Your task to perform on an android device: Open wifi settings Image 0: 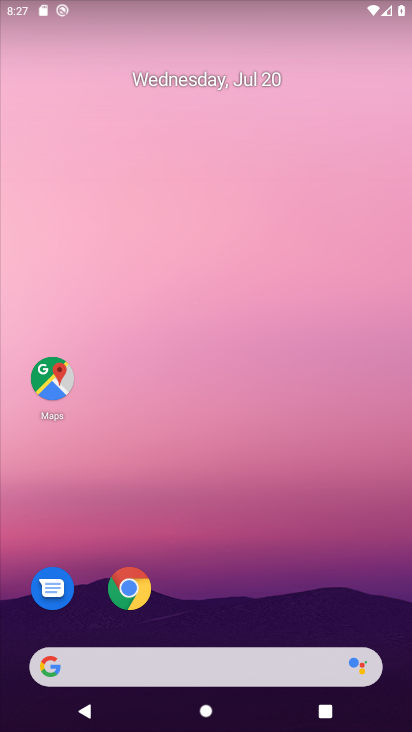
Step 0: drag from (215, 615) to (252, 85)
Your task to perform on an android device: Open wifi settings Image 1: 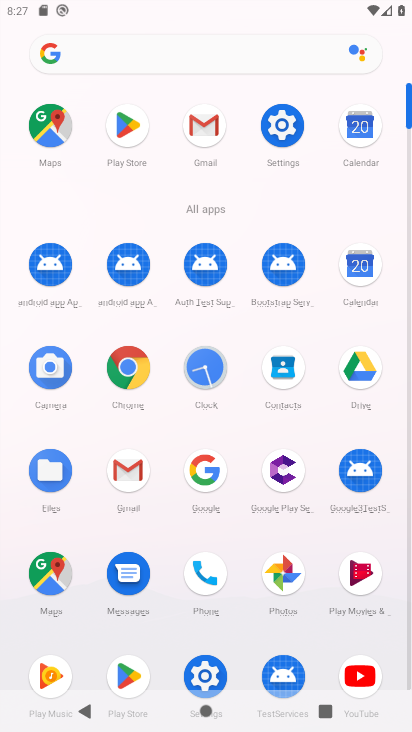
Step 1: click (266, 120)
Your task to perform on an android device: Open wifi settings Image 2: 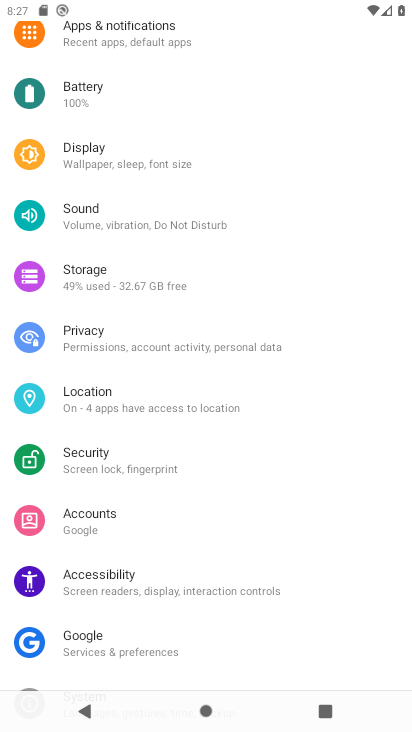
Step 2: drag from (181, 93) to (169, 563)
Your task to perform on an android device: Open wifi settings Image 3: 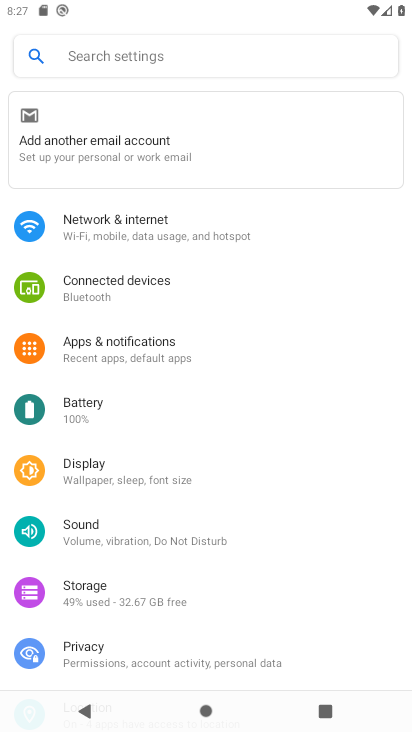
Step 3: click (191, 223)
Your task to perform on an android device: Open wifi settings Image 4: 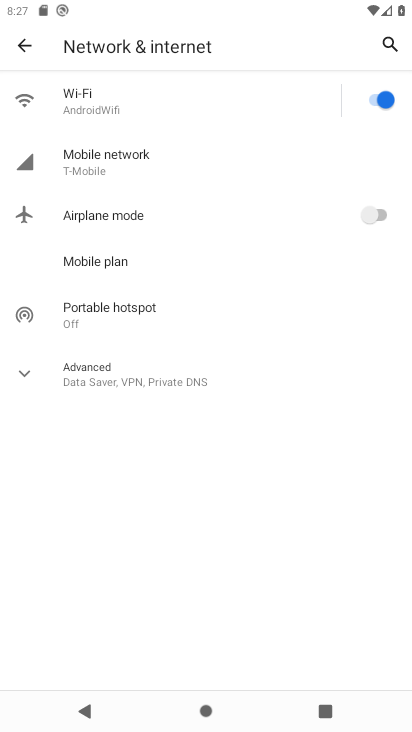
Step 4: click (137, 100)
Your task to perform on an android device: Open wifi settings Image 5: 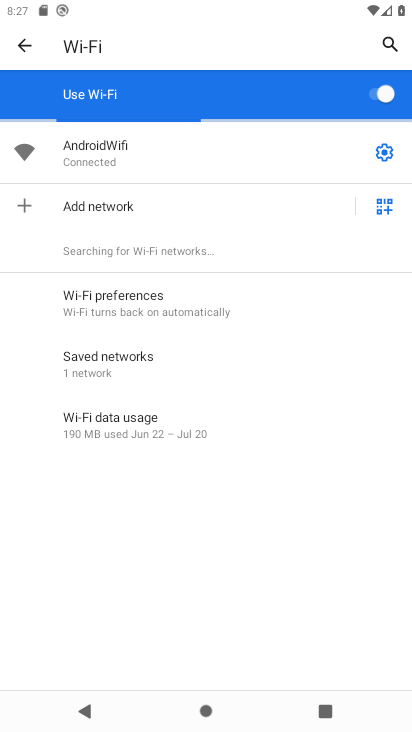
Step 5: task complete